Your task to perform on an android device: turn pop-ups on in chrome Image 0: 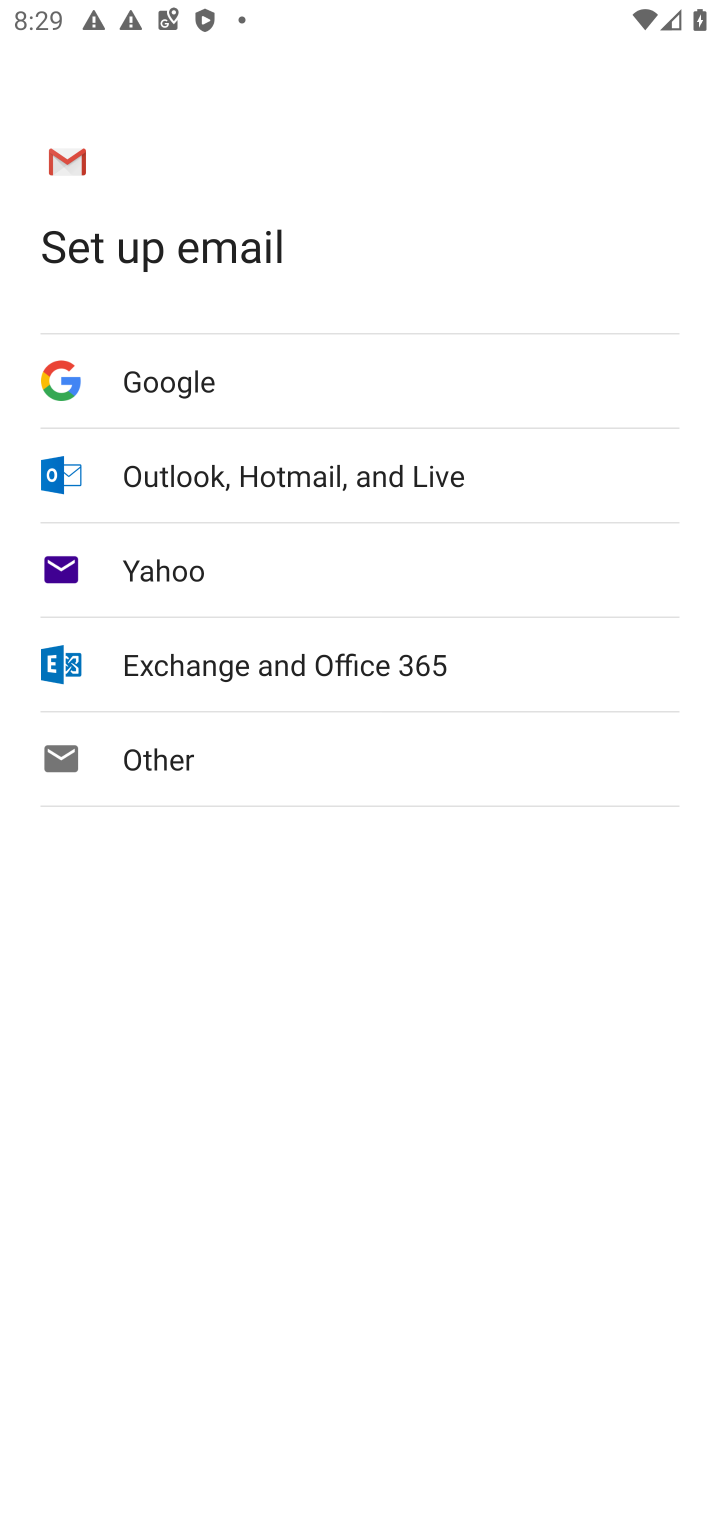
Step 0: press home button
Your task to perform on an android device: turn pop-ups on in chrome Image 1: 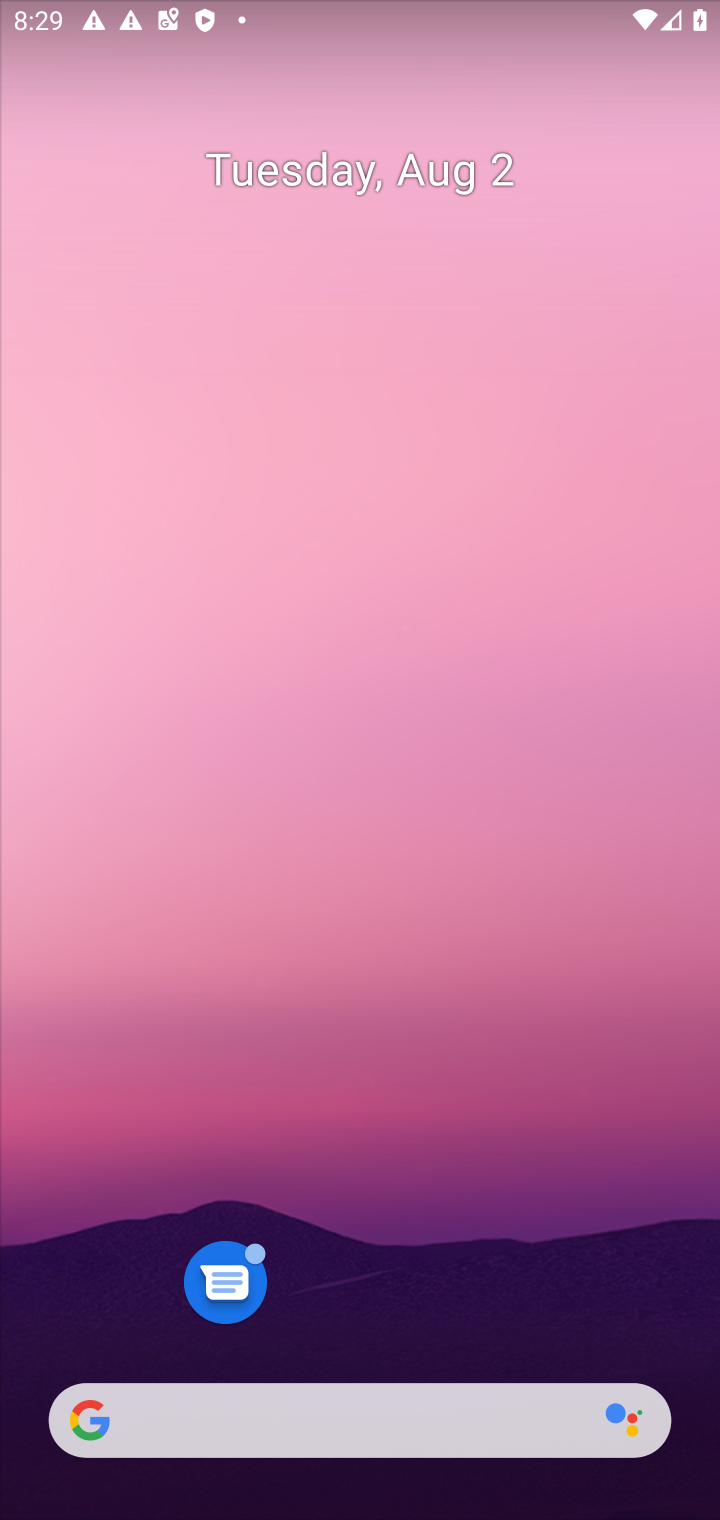
Step 1: drag from (322, 1352) to (386, 83)
Your task to perform on an android device: turn pop-ups on in chrome Image 2: 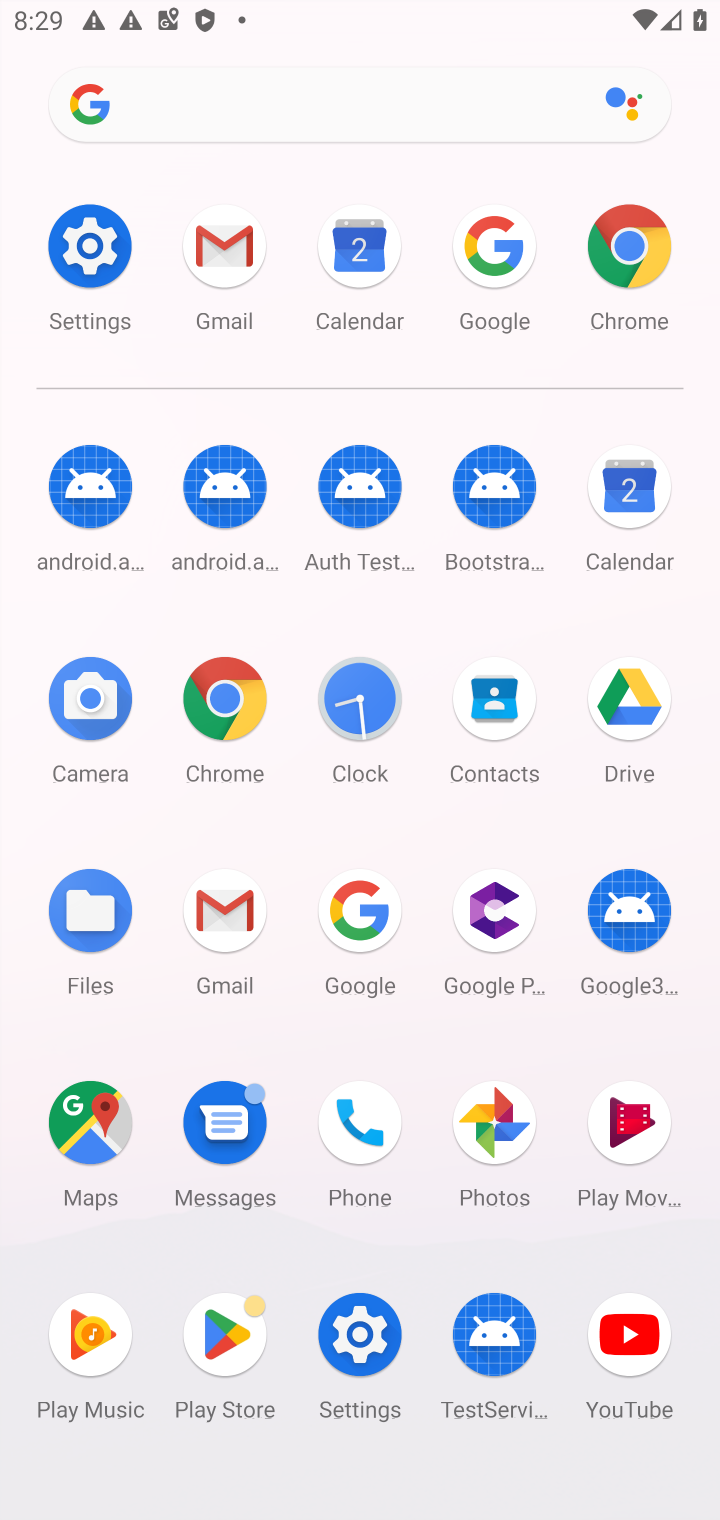
Step 2: click (231, 711)
Your task to perform on an android device: turn pop-ups on in chrome Image 3: 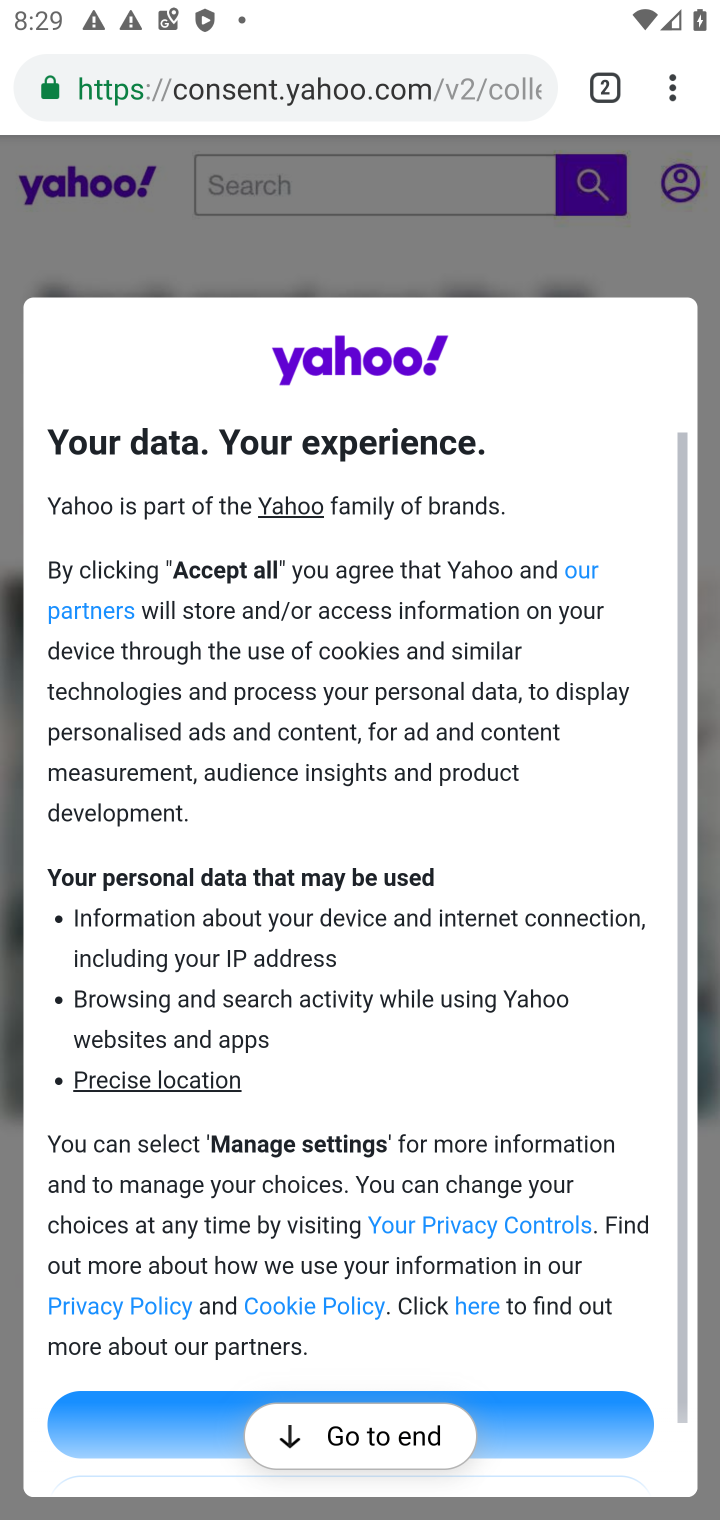
Step 3: drag from (668, 75) to (346, 1048)
Your task to perform on an android device: turn pop-ups on in chrome Image 4: 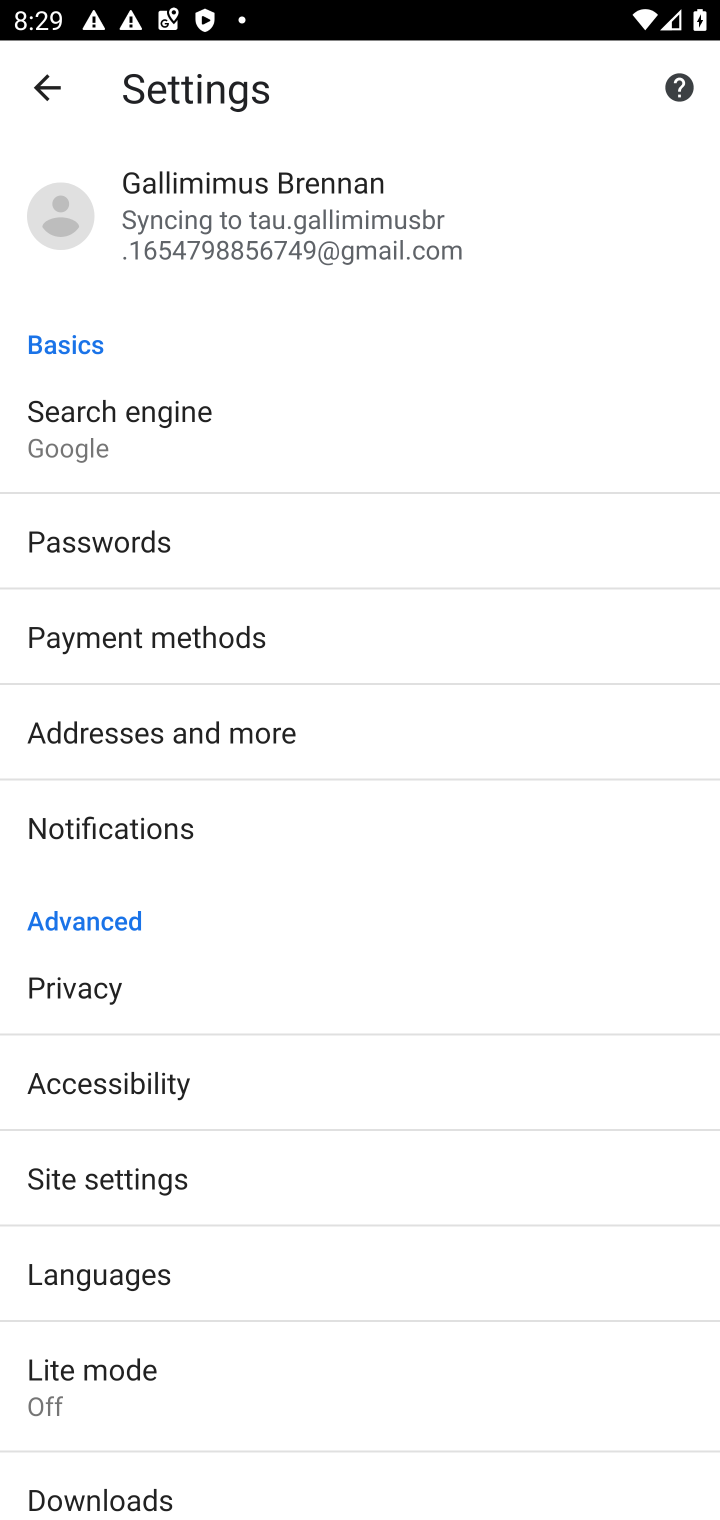
Step 4: drag from (168, 1181) to (26, 120)
Your task to perform on an android device: turn pop-ups on in chrome Image 5: 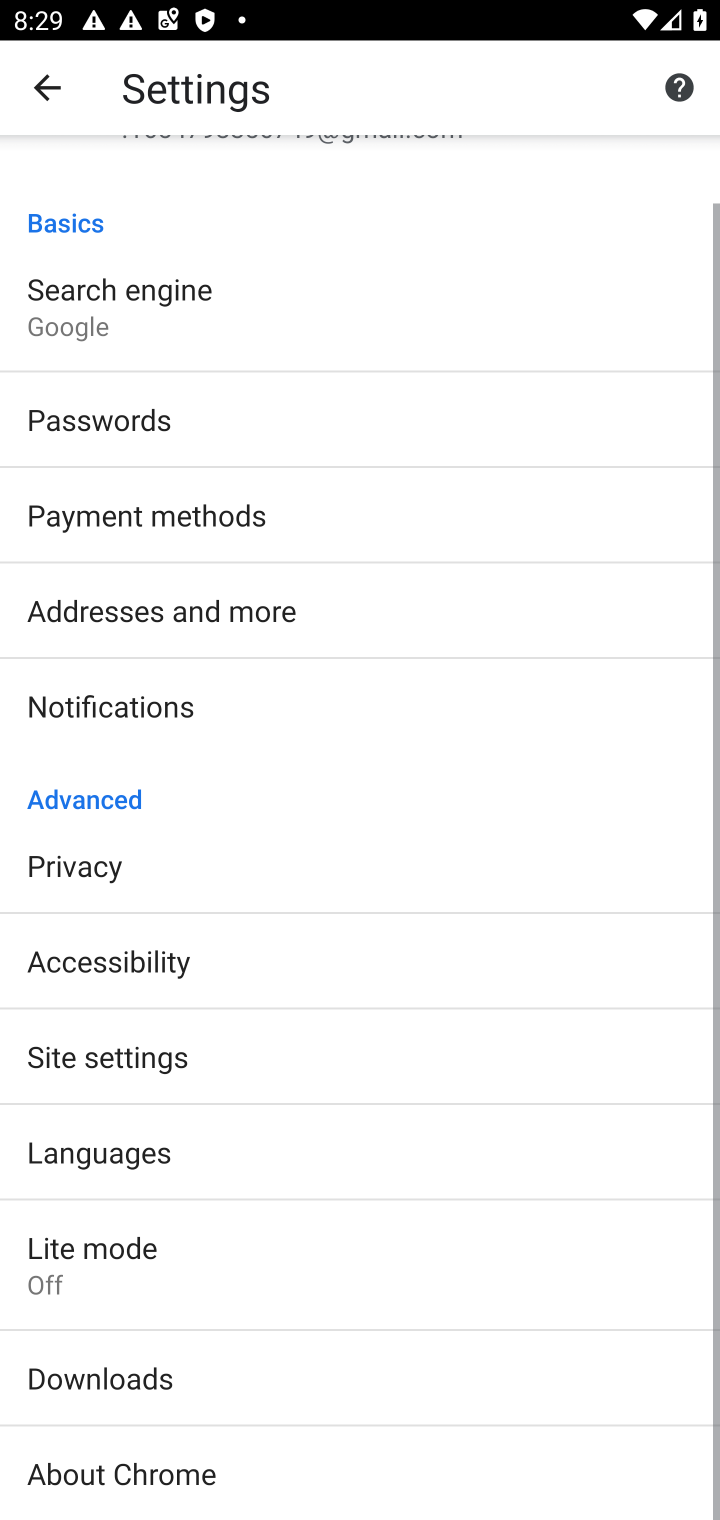
Step 5: click (96, 1063)
Your task to perform on an android device: turn pop-ups on in chrome Image 6: 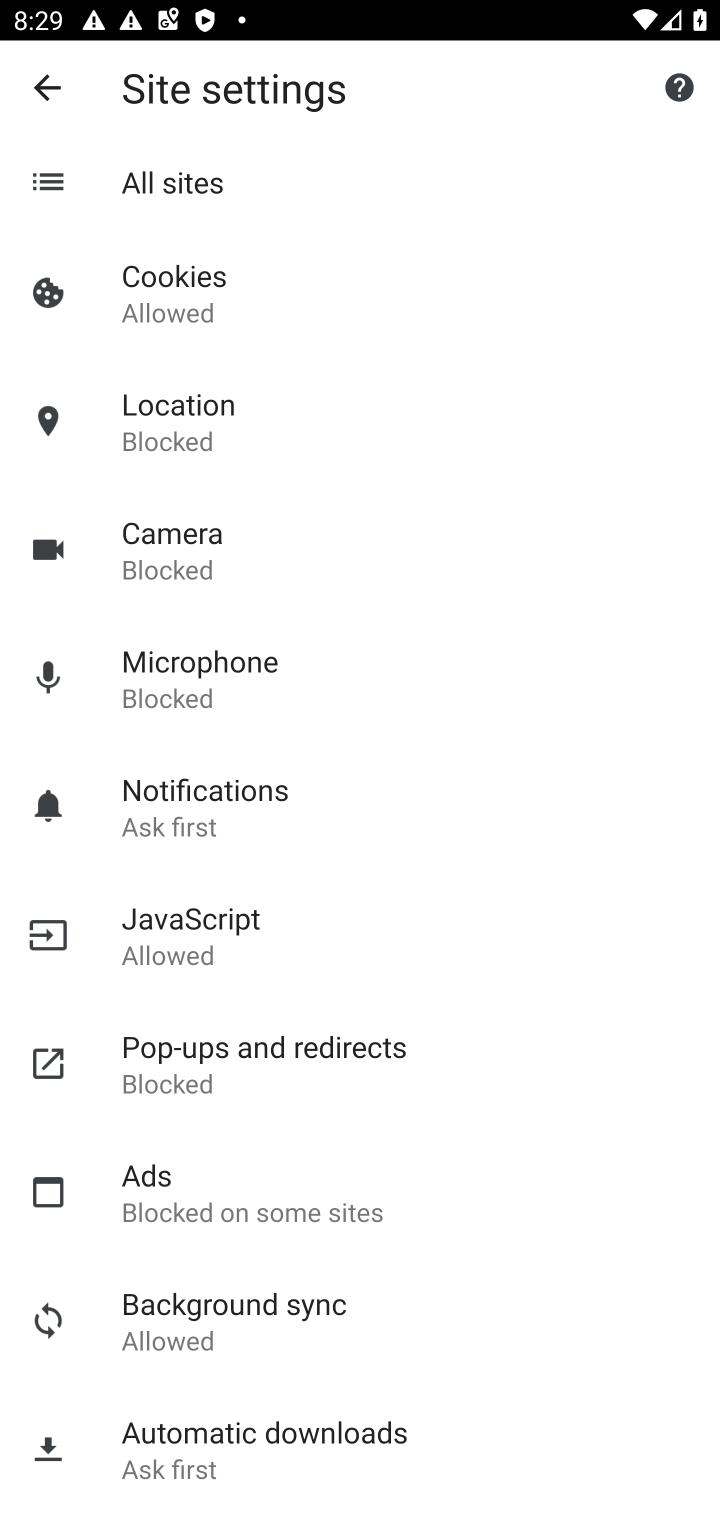
Step 6: click (239, 1049)
Your task to perform on an android device: turn pop-ups on in chrome Image 7: 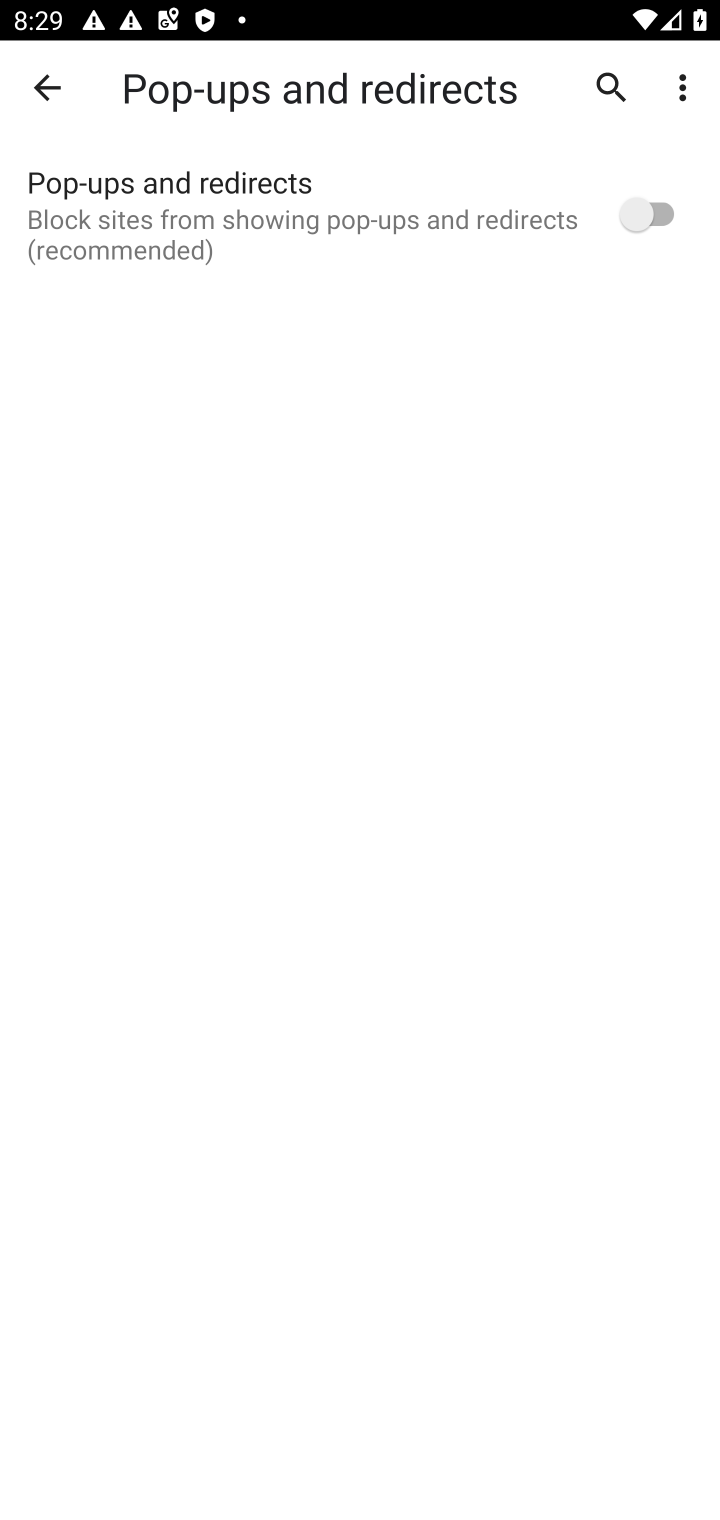
Step 7: click (642, 211)
Your task to perform on an android device: turn pop-ups on in chrome Image 8: 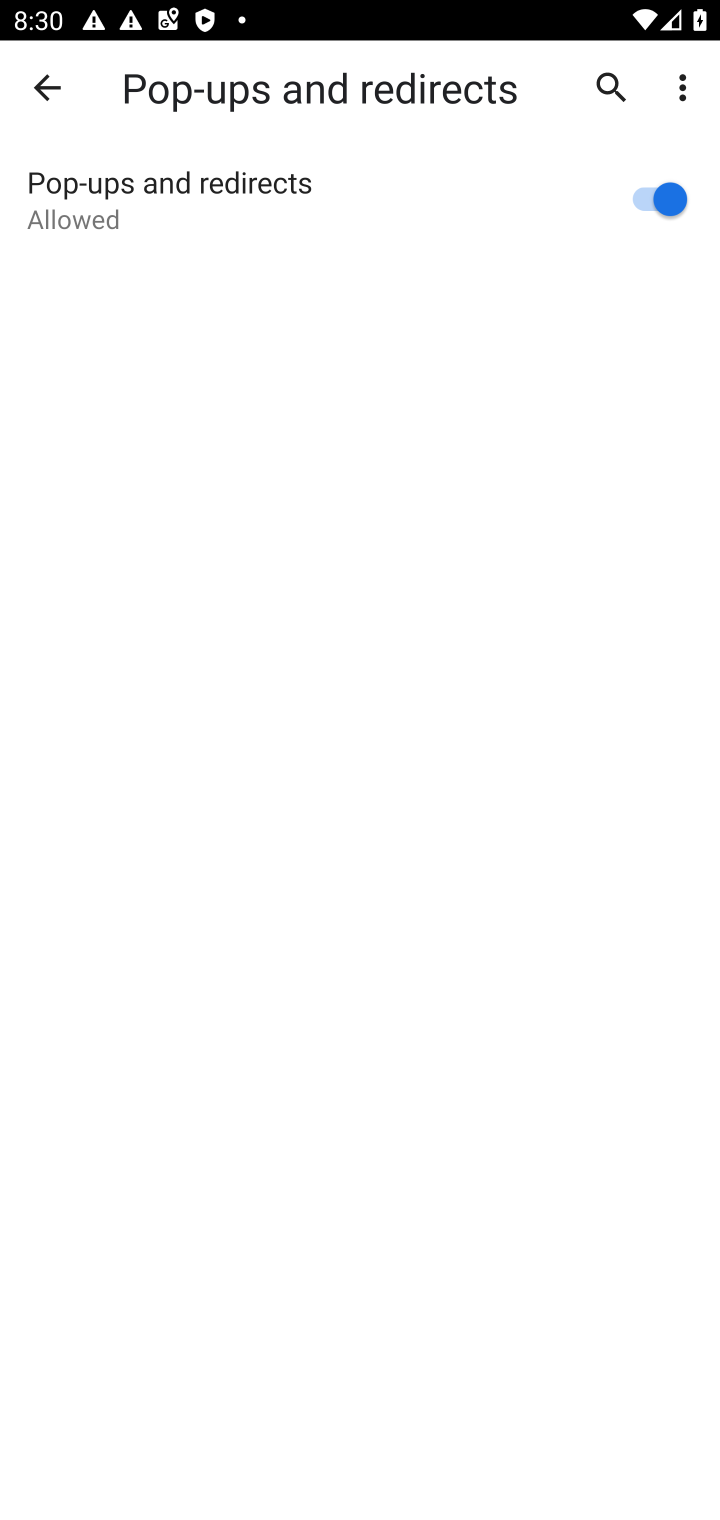
Step 8: task complete